Your task to perform on an android device: Search for a storage ottoman in the living room Image 0: 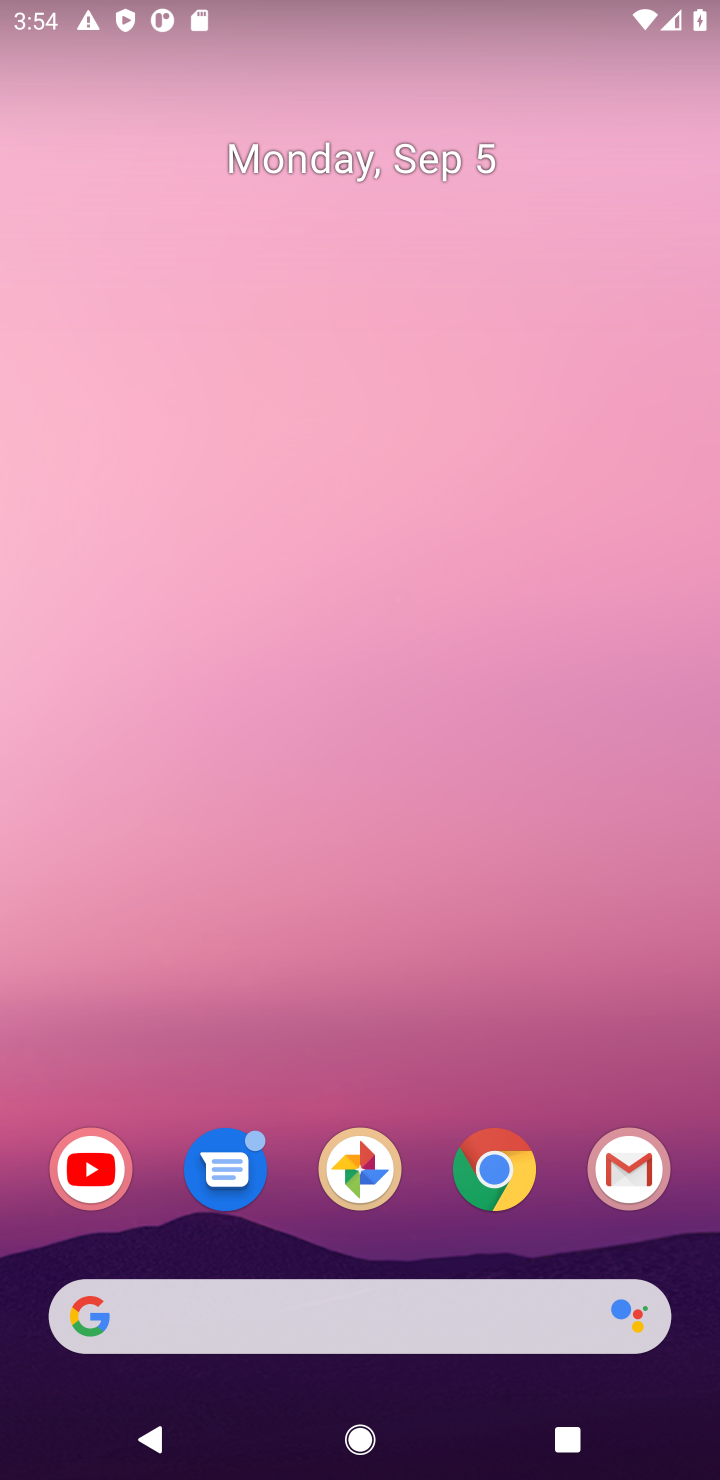
Step 0: click (490, 1163)
Your task to perform on an android device: Search for a storage ottoman in the living room Image 1: 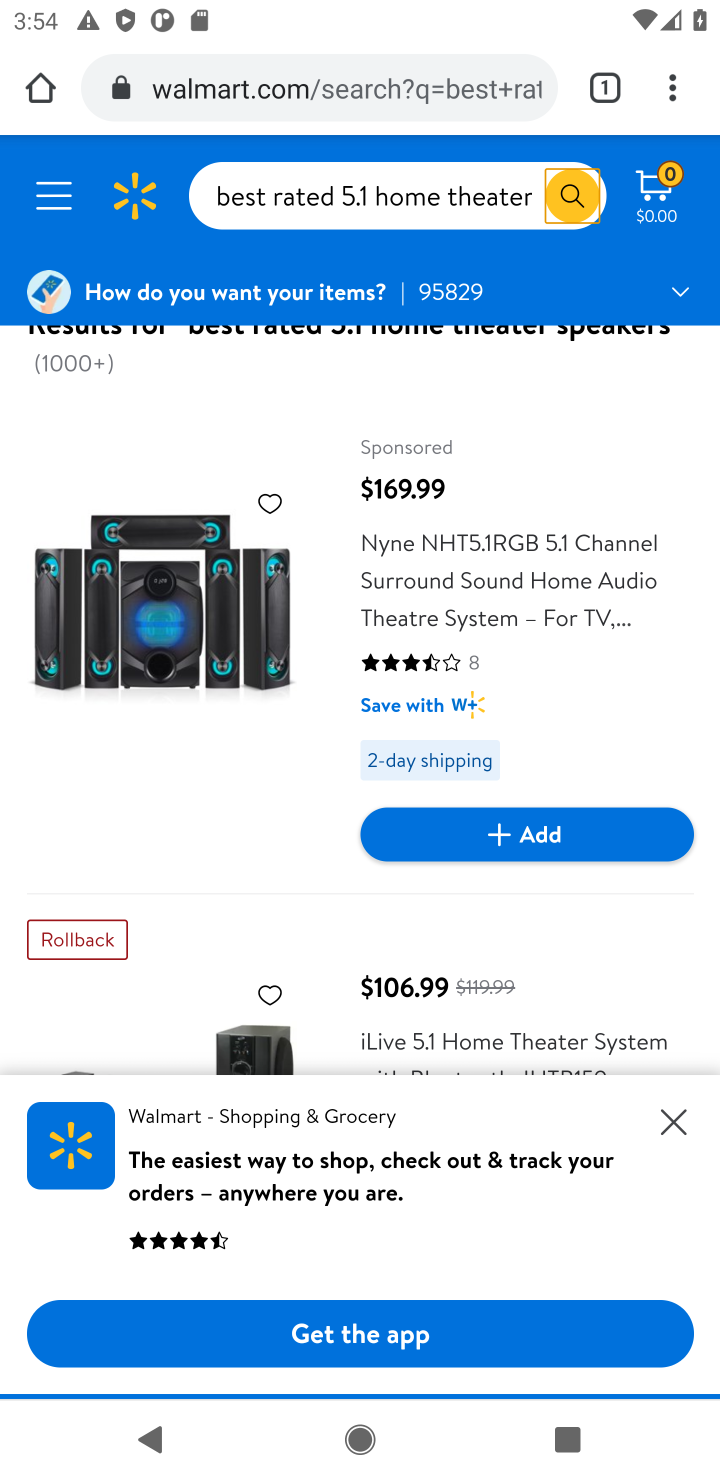
Step 1: click (392, 103)
Your task to perform on an android device: Search for a storage ottoman in the living room Image 2: 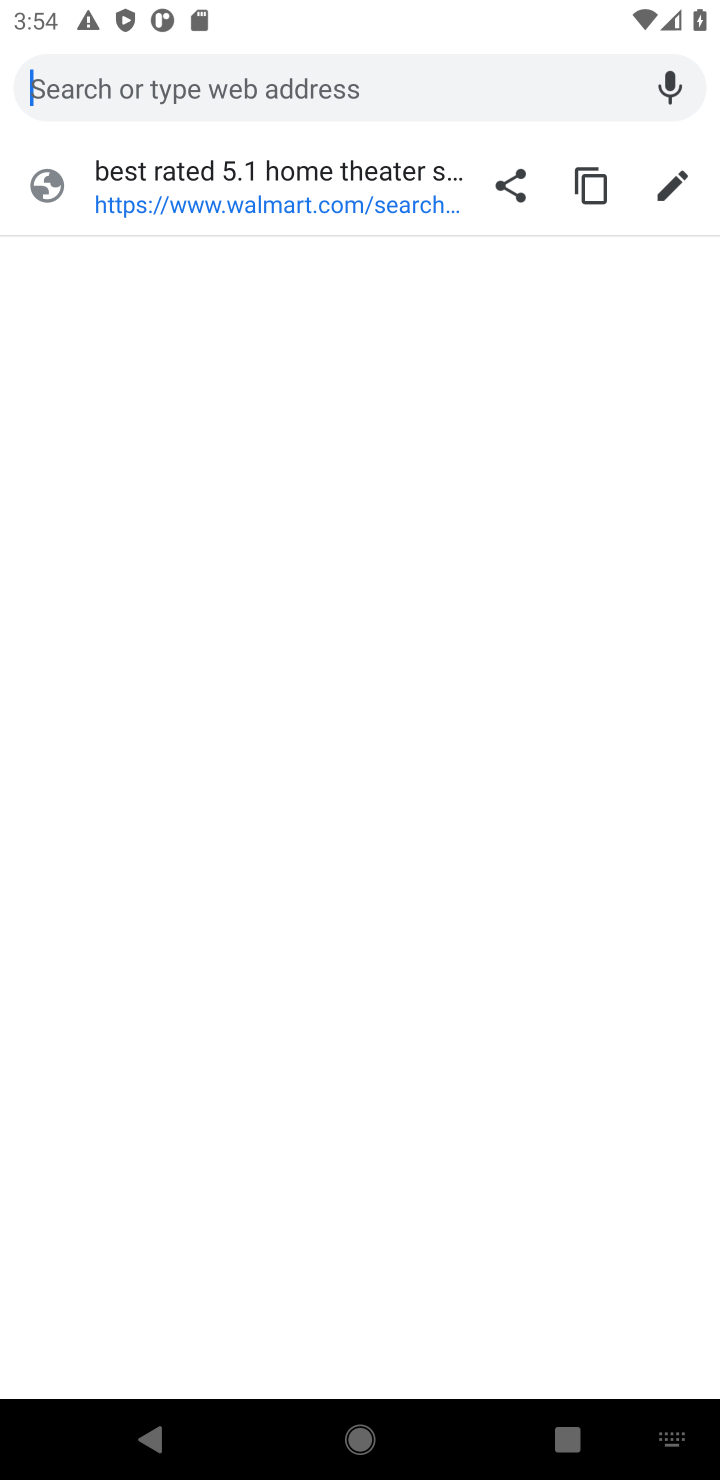
Step 2: type "storage ottoman in the living room"
Your task to perform on an android device: Search for a storage ottoman in the living room Image 3: 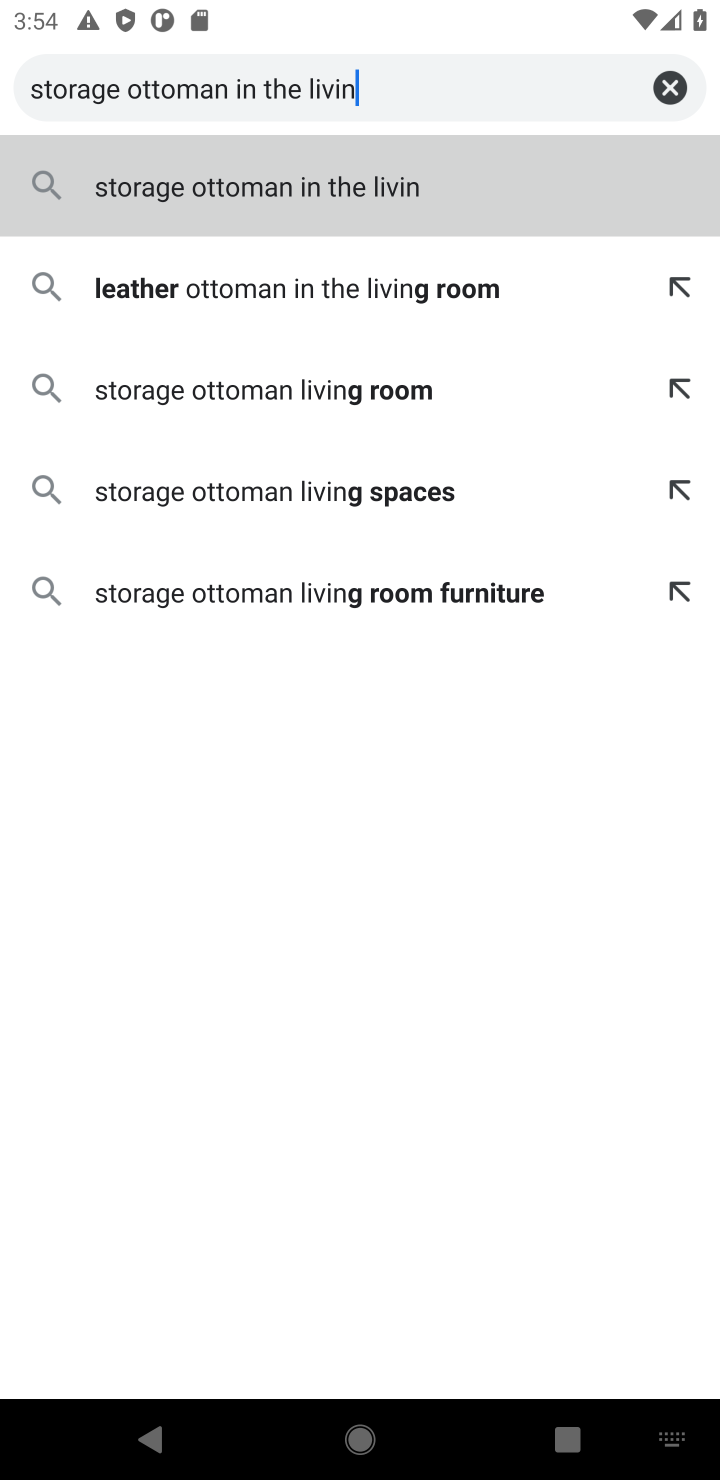
Step 3: type "g"
Your task to perform on an android device: Search for a storage ottoman in the living room Image 4: 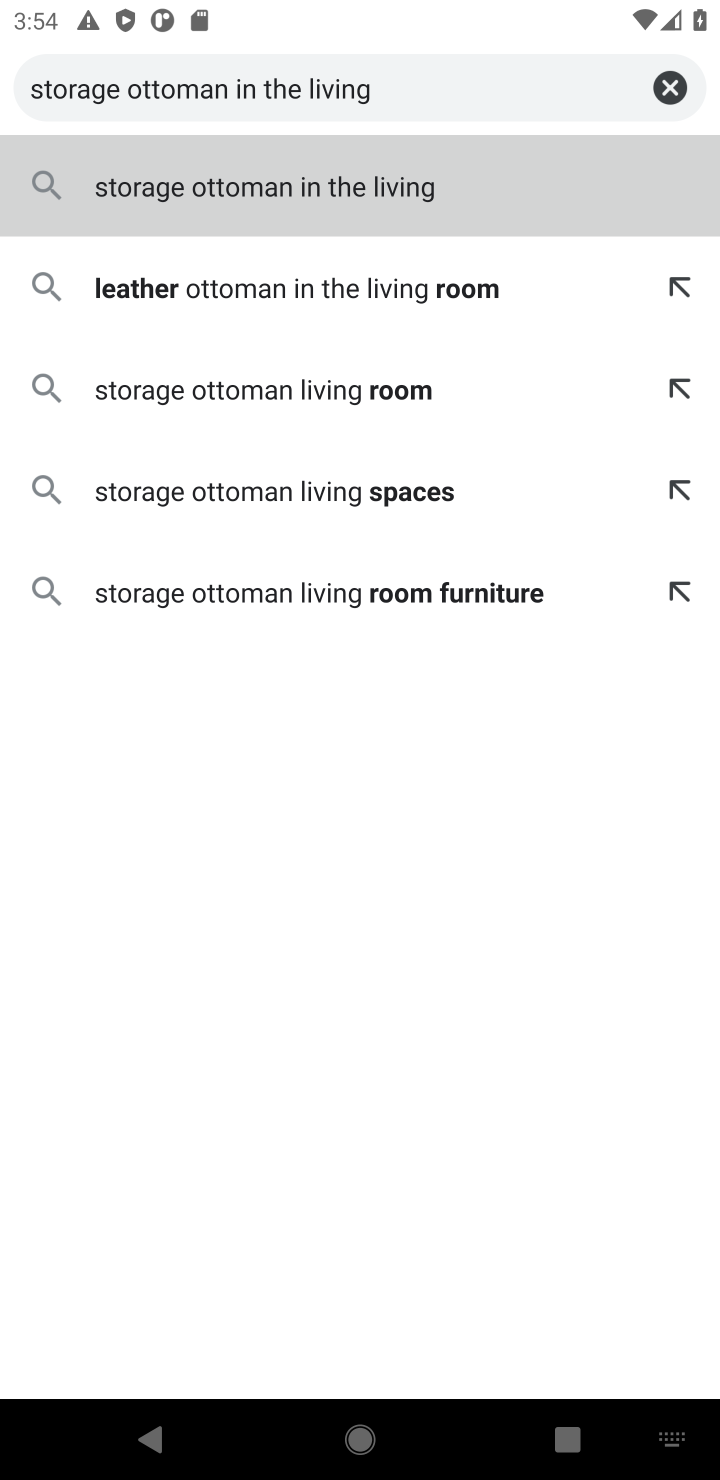
Step 4: type " room"
Your task to perform on an android device: Search for a storage ottoman in the living room Image 5: 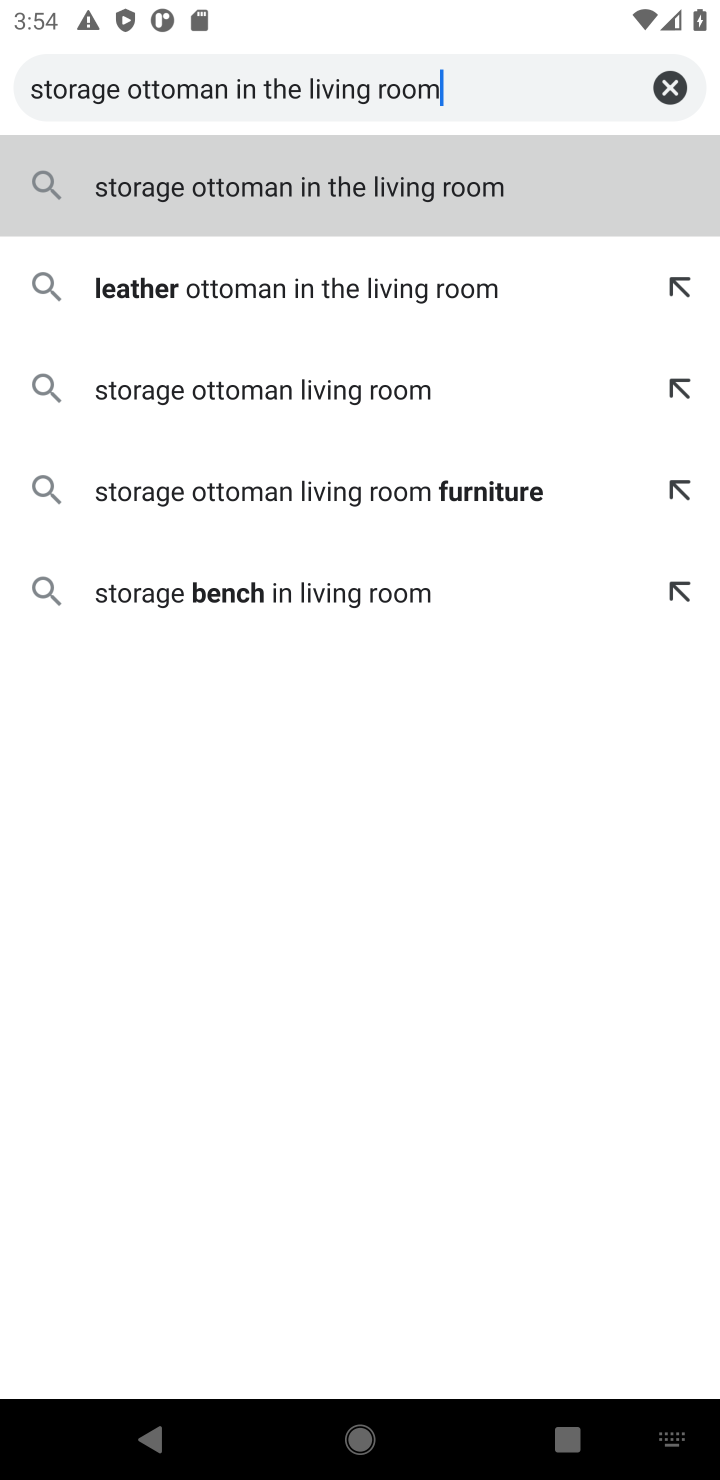
Step 5: click (302, 193)
Your task to perform on an android device: Search for a storage ottoman in the living room Image 6: 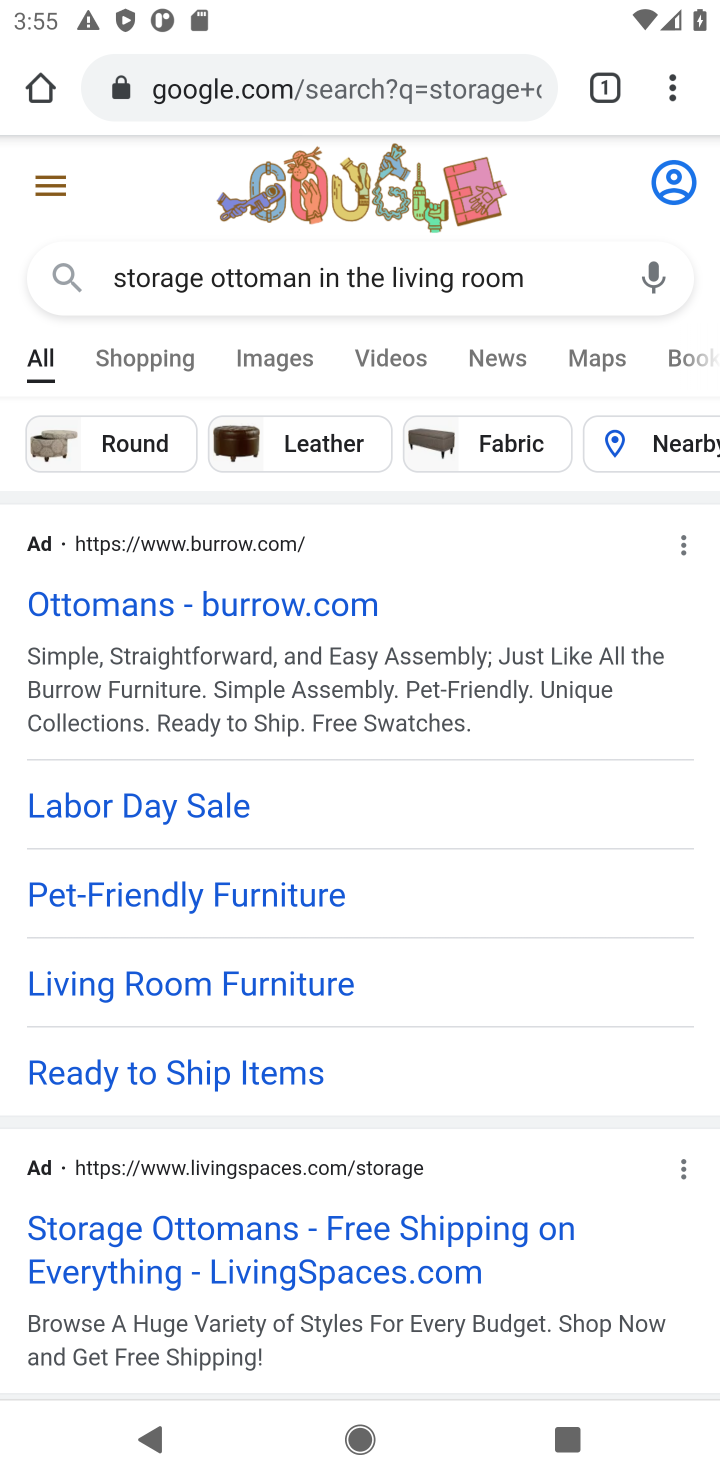
Step 6: drag from (395, 837) to (402, 529)
Your task to perform on an android device: Search for a storage ottoman in the living room Image 7: 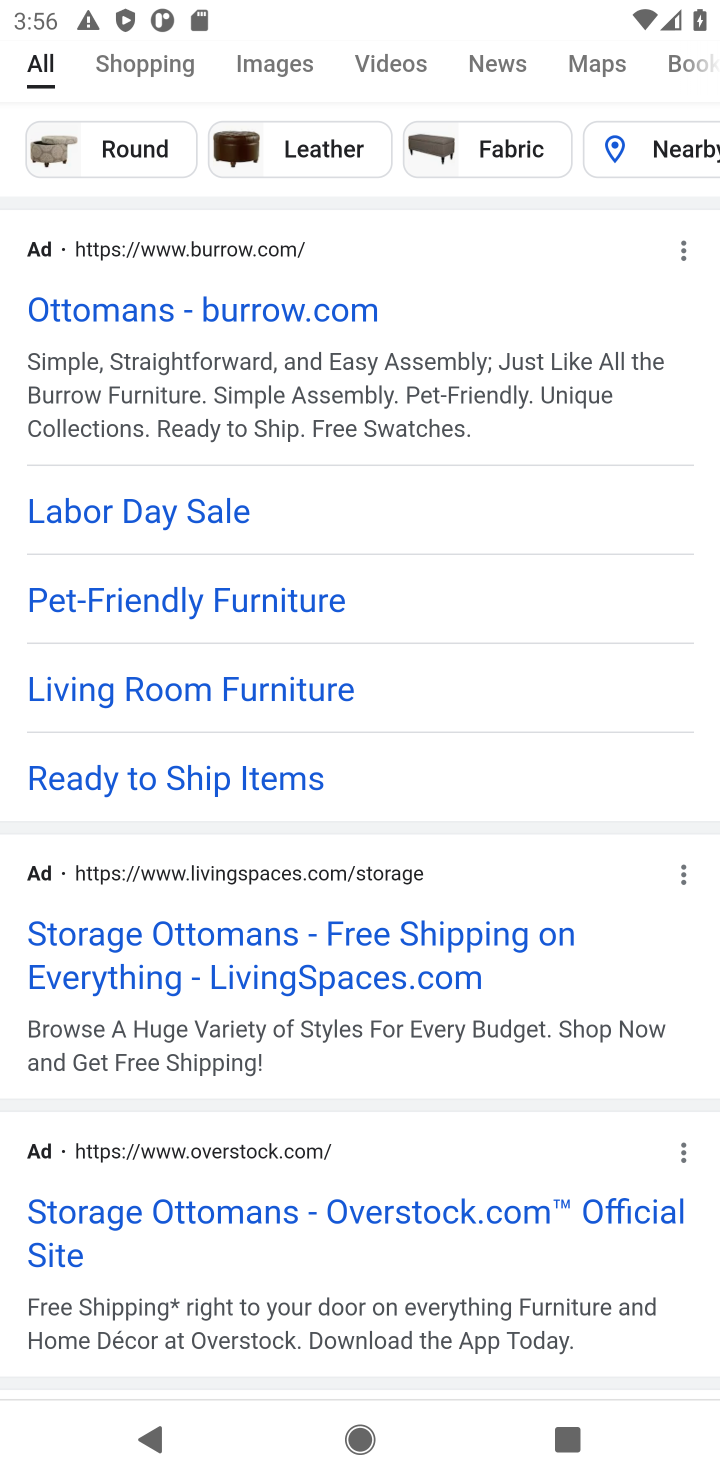
Step 7: click (128, 701)
Your task to perform on an android device: Search for a storage ottoman in the living room Image 8: 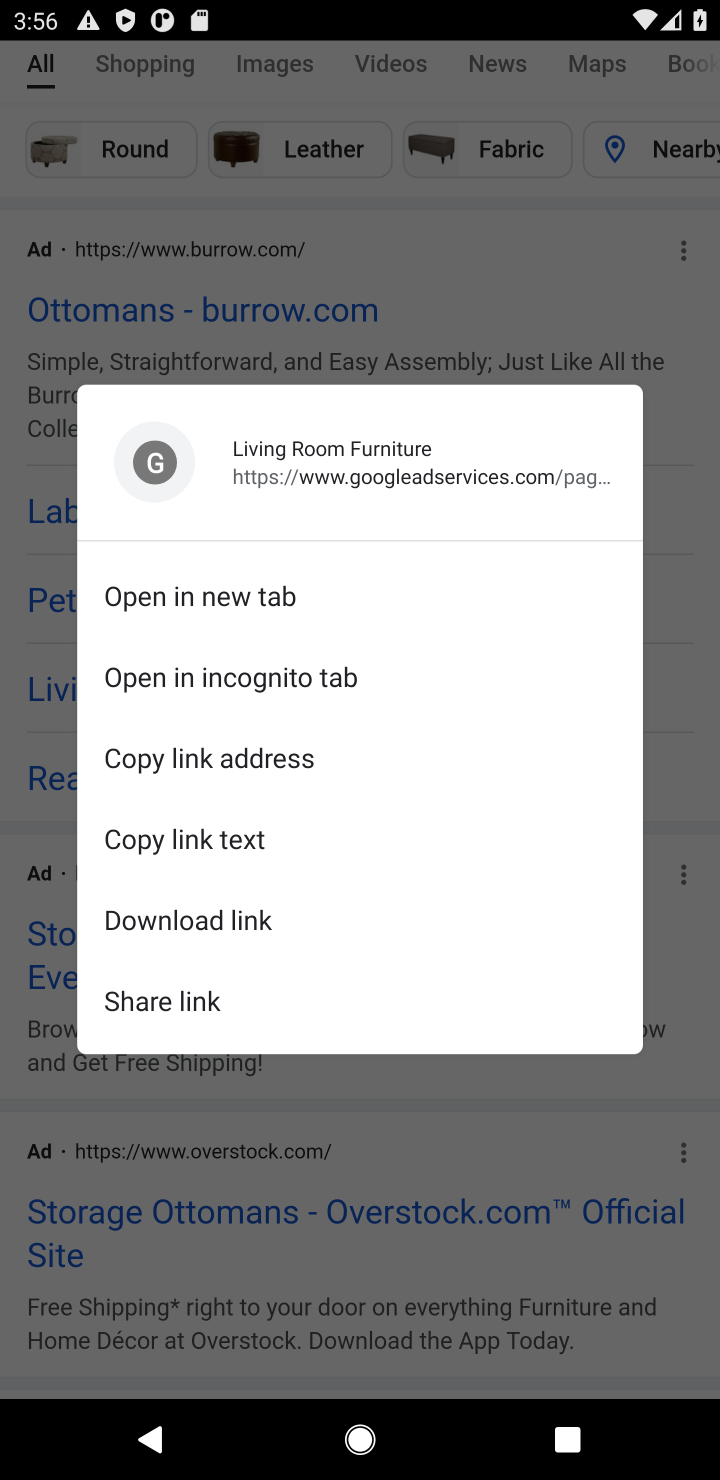
Step 8: click (76, 333)
Your task to perform on an android device: Search for a storage ottoman in the living room Image 9: 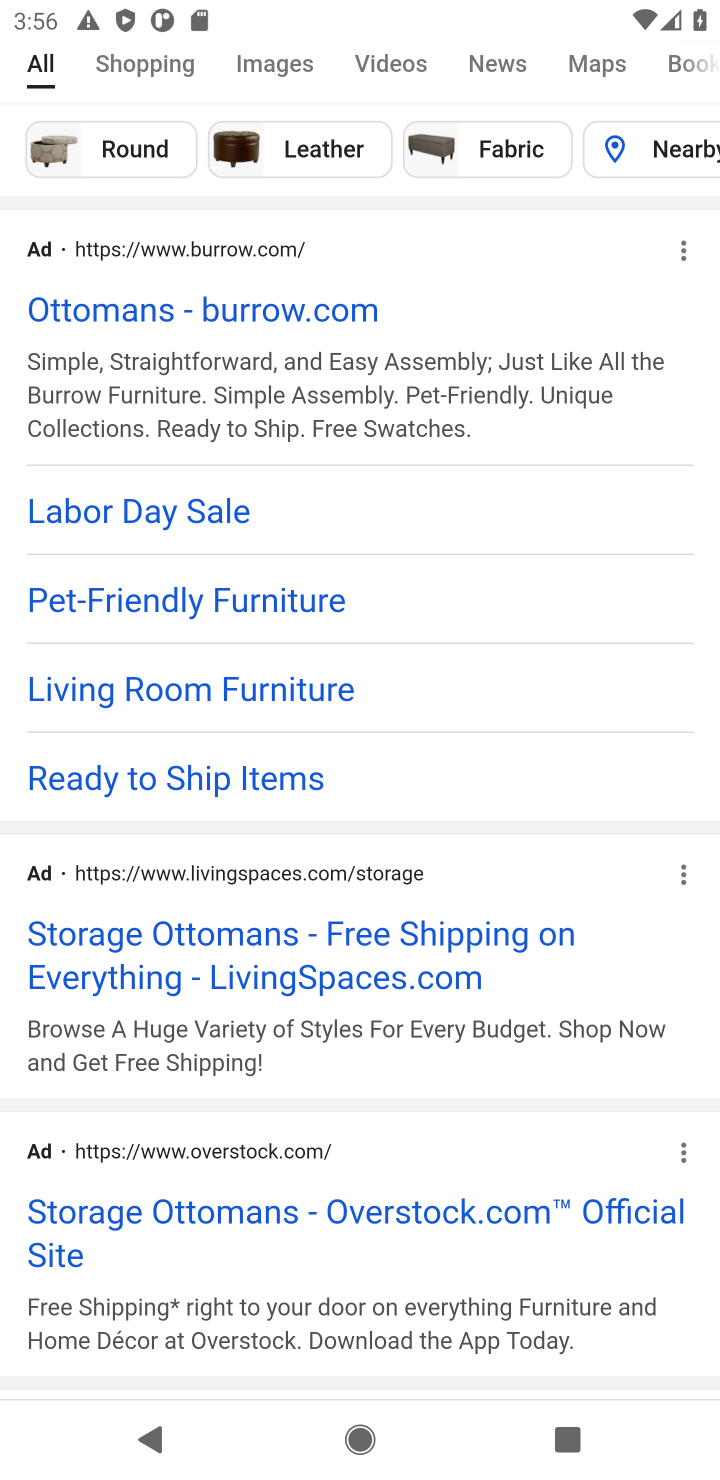
Step 9: click (175, 938)
Your task to perform on an android device: Search for a storage ottoman in the living room Image 10: 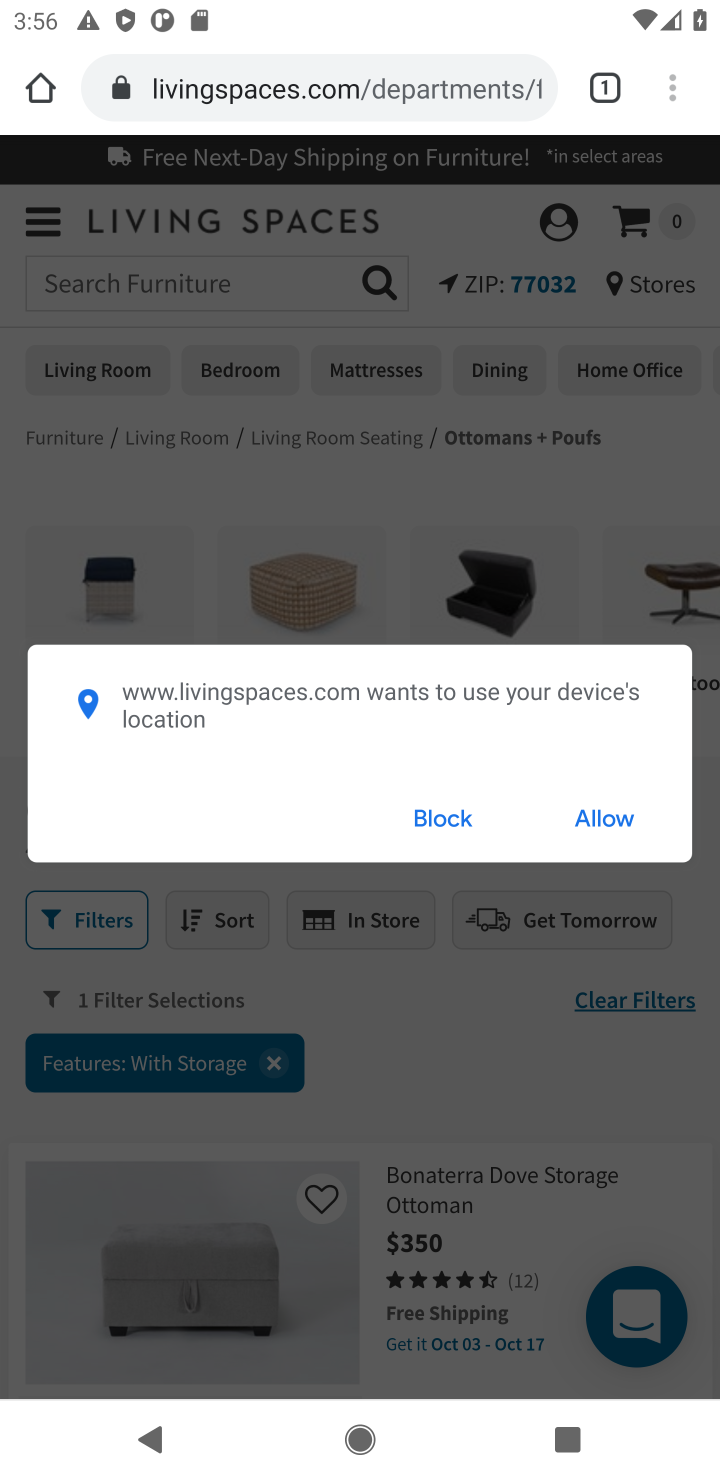
Step 10: click (425, 823)
Your task to perform on an android device: Search for a storage ottoman in the living room Image 11: 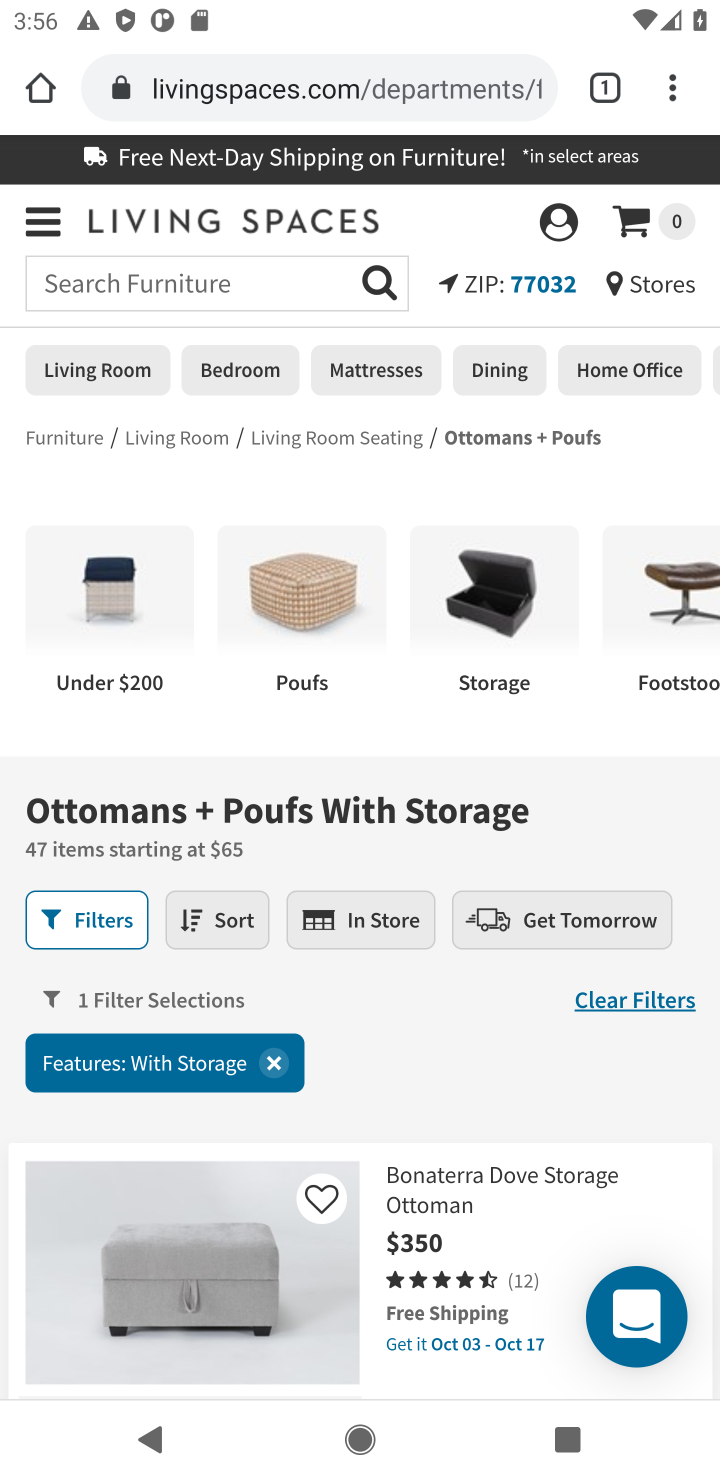
Step 11: task complete